Your task to perform on an android device: turn off picture-in-picture Image 0: 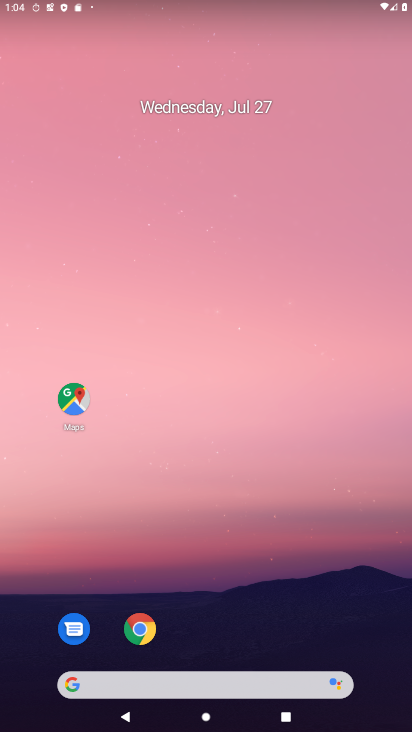
Step 0: drag from (364, 607) to (112, 64)
Your task to perform on an android device: turn off picture-in-picture Image 1: 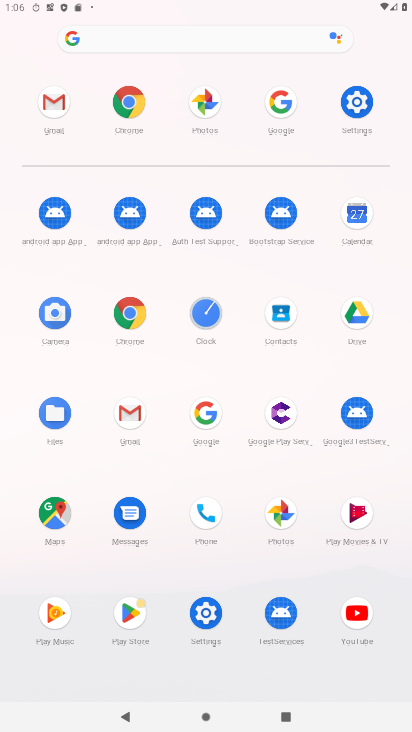
Step 1: click (118, 314)
Your task to perform on an android device: turn off picture-in-picture Image 2: 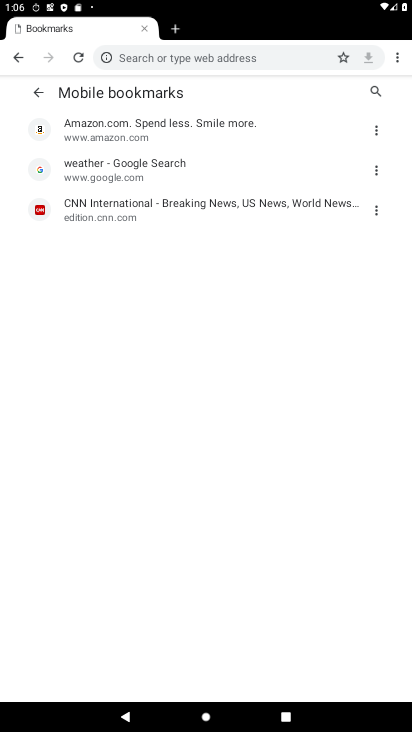
Step 2: task complete